Your task to perform on an android device: check battery use Image 0: 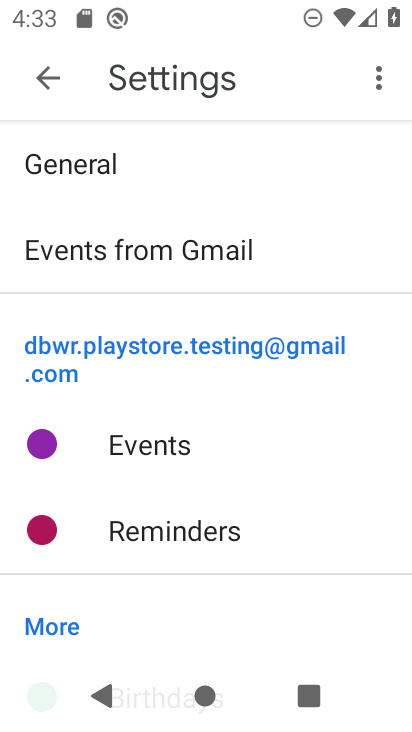
Step 0: press home button
Your task to perform on an android device: check battery use Image 1: 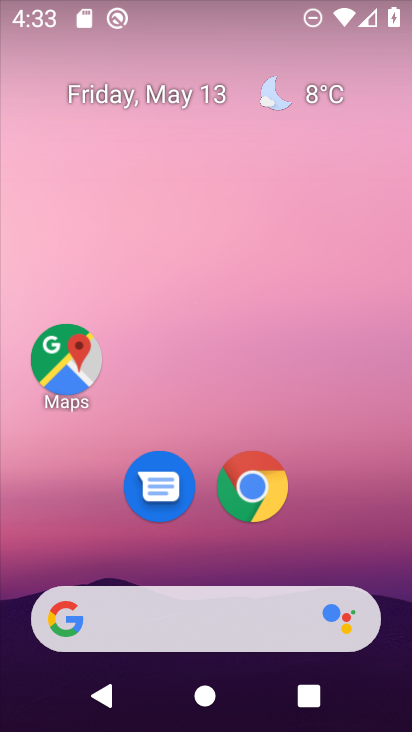
Step 1: drag from (360, 533) to (370, 143)
Your task to perform on an android device: check battery use Image 2: 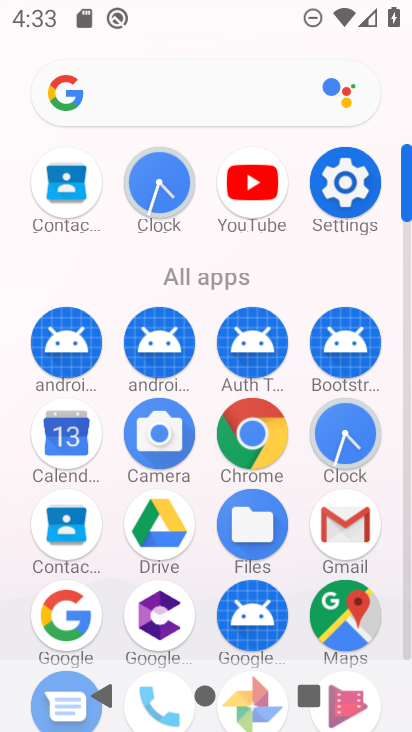
Step 2: click (357, 195)
Your task to perform on an android device: check battery use Image 3: 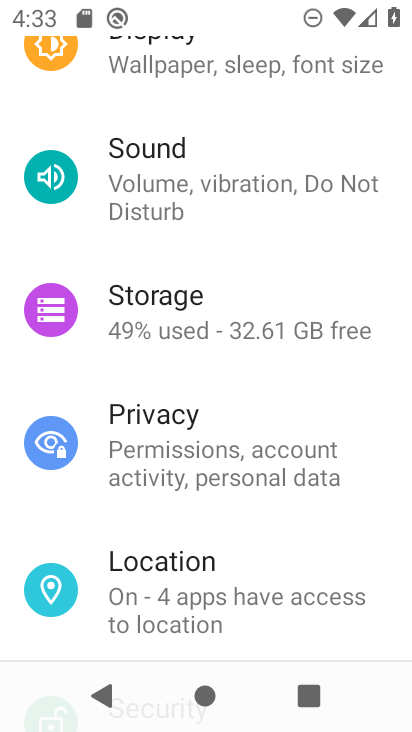
Step 3: drag from (208, 525) to (227, 296)
Your task to perform on an android device: check battery use Image 4: 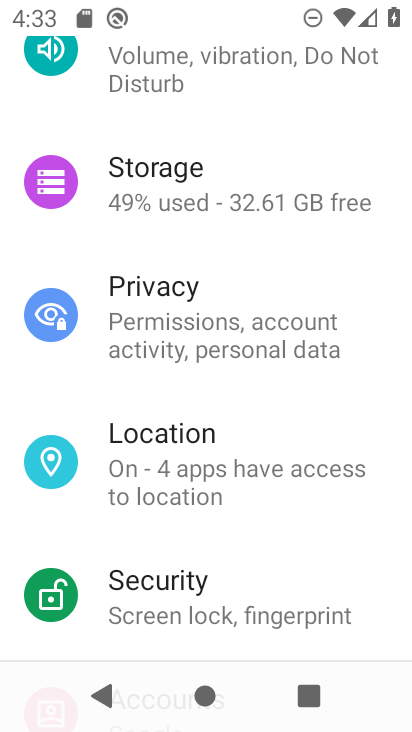
Step 4: drag from (227, 577) to (235, 321)
Your task to perform on an android device: check battery use Image 5: 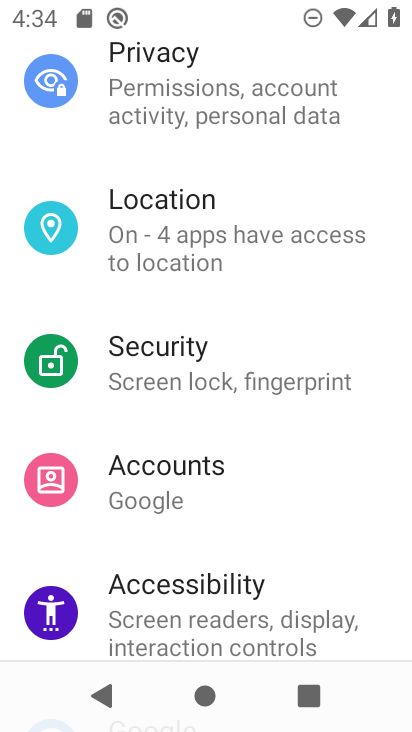
Step 5: drag from (208, 560) to (216, 288)
Your task to perform on an android device: check battery use Image 6: 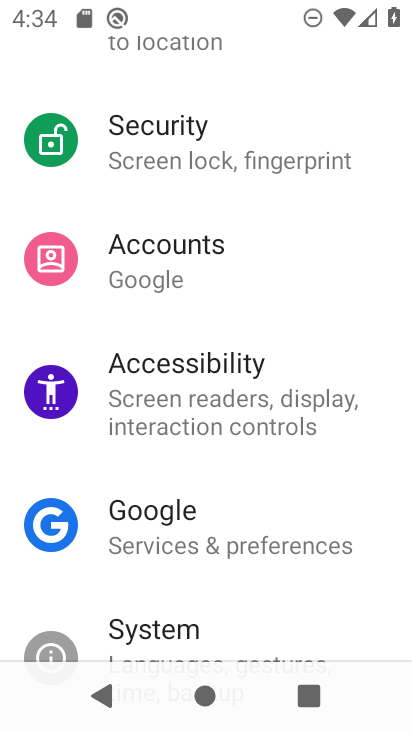
Step 6: drag from (216, 288) to (237, 643)
Your task to perform on an android device: check battery use Image 7: 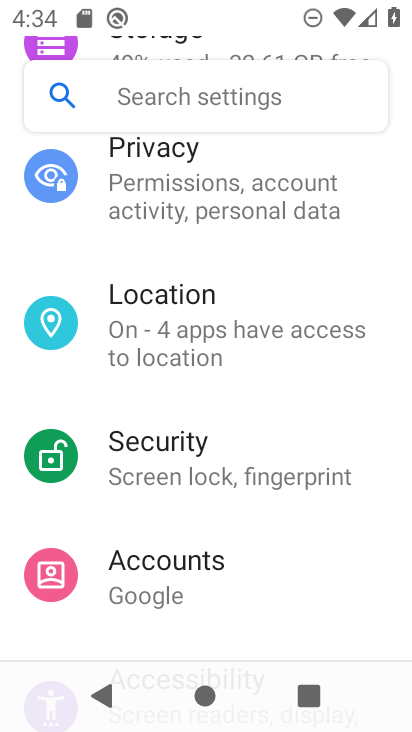
Step 7: drag from (229, 224) to (230, 690)
Your task to perform on an android device: check battery use Image 8: 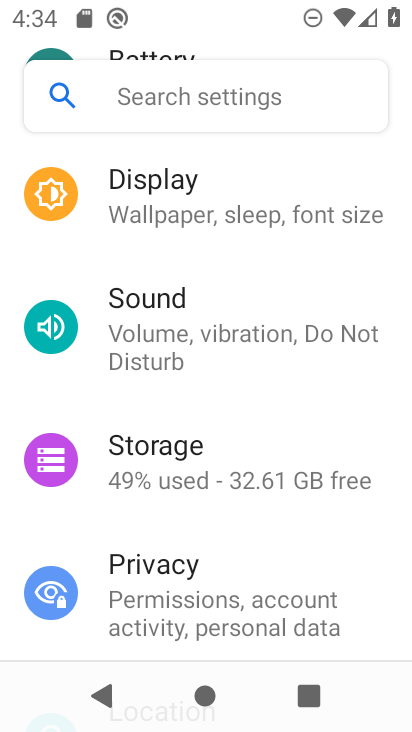
Step 8: drag from (145, 181) to (157, 387)
Your task to perform on an android device: check battery use Image 9: 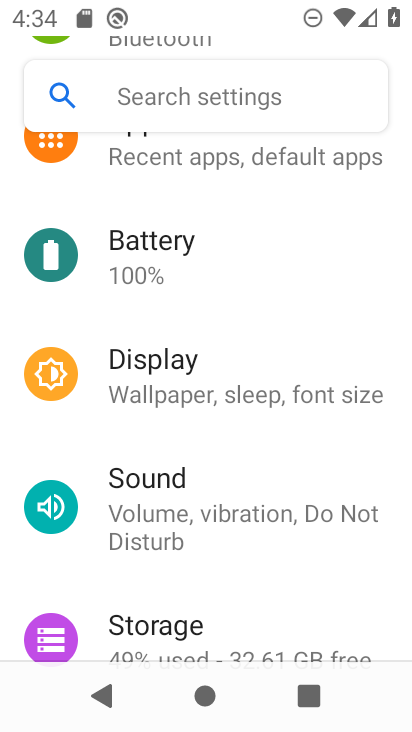
Step 9: click (157, 268)
Your task to perform on an android device: check battery use Image 10: 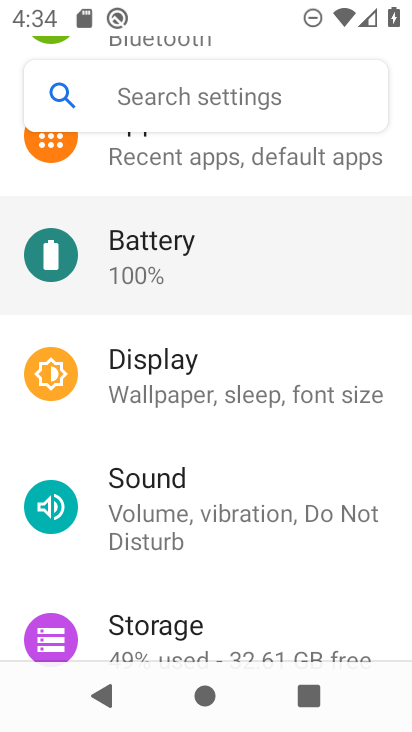
Step 10: task complete